Your task to perform on an android device: create a new album in the google photos Image 0: 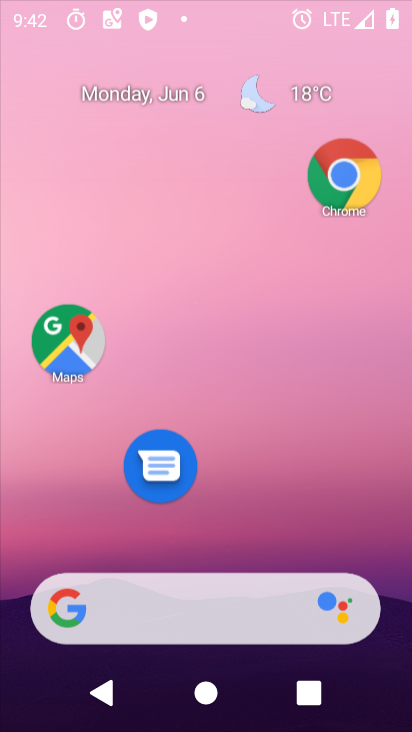
Step 0: click (240, 227)
Your task to perform on an android device: create a new album in the google photos Image 1: 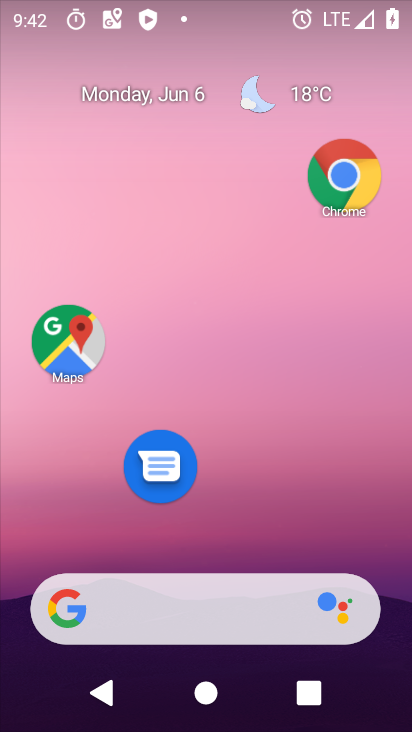
Step 1: drag from (240, 399) to (250, 213)
Your task to perform on an android device: create a new album in the google photos Image 2: 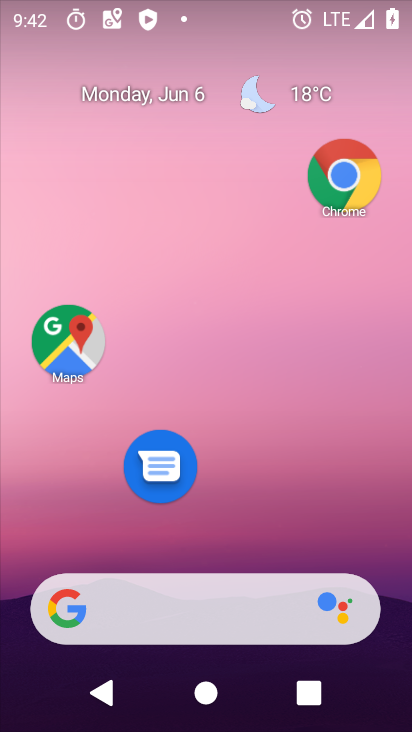
Step 2: drag from (233, 508) to (206, 221)
Your task to perform on an android device: create a new album in the google photos Image 3: 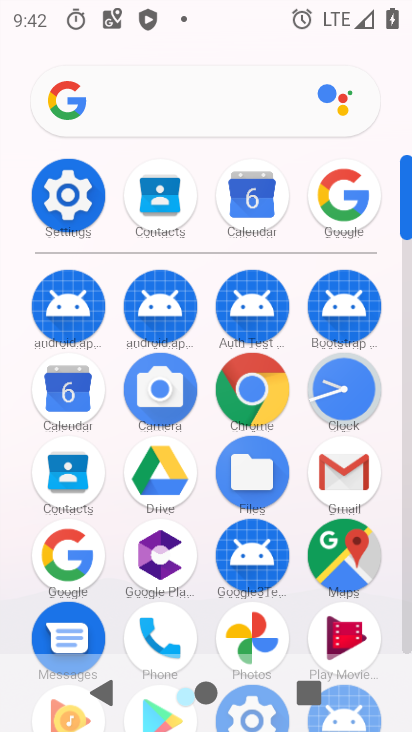
Step 3: click (248, 629)
Your task to perform on an android device: create a new album in the google photos Image 4: 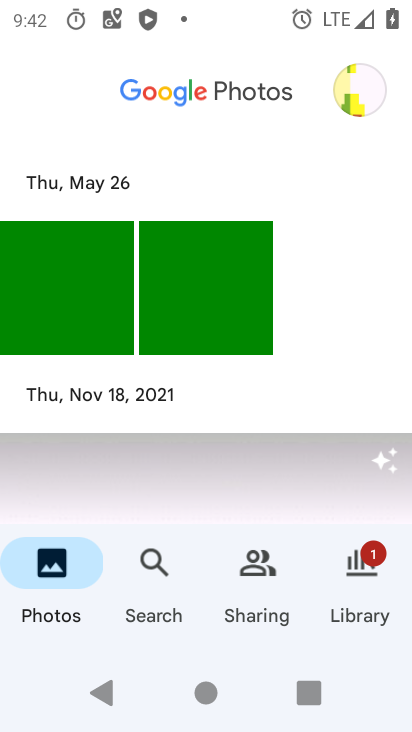
Step 4: drag from (250, 518) to (282, 95)
Your task to perform on an android device: create a new album in the google photos Image 5: 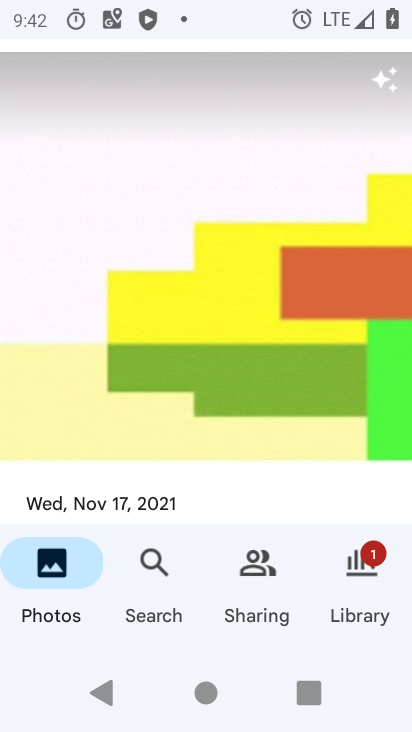
Step 5: drag from (349, 340) to (21, 281)
Your task to perform on an android device: create a new album in the google photos Image 6: 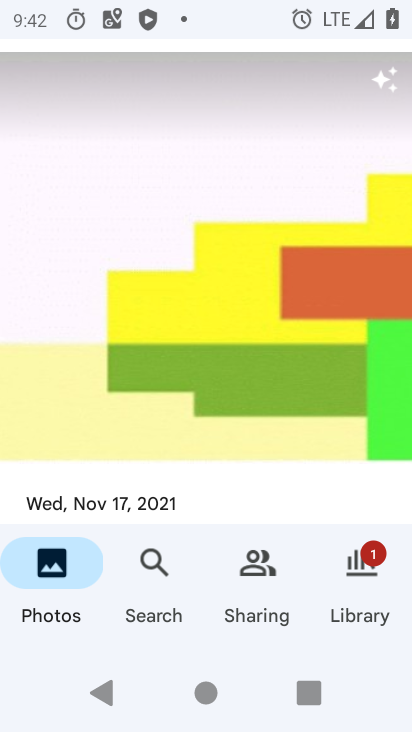
Step 6: drag from (207, 465) to (274, 95)
Your task to perform on an android device: create a new album in the google photos Image 7: 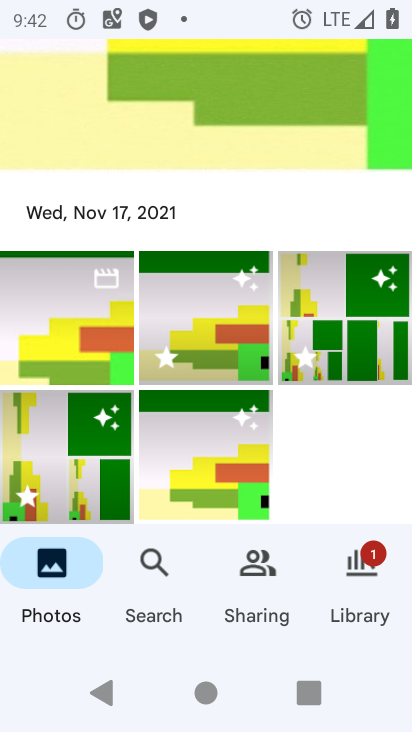
Step 7: click (46, 339)
Your task to perform on an android device: create a new album in the google photos Image 8: 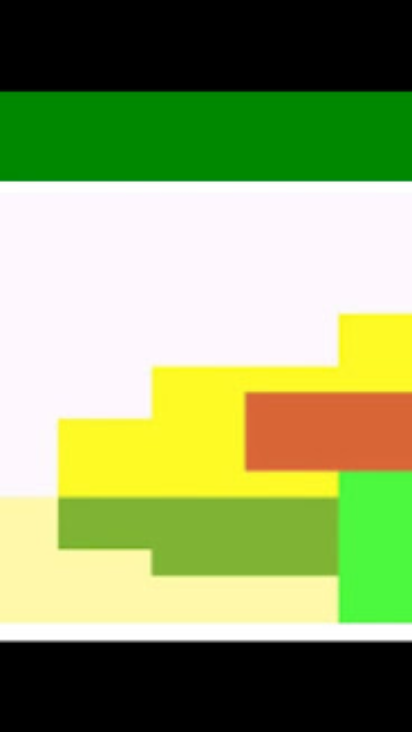
Step 8: task complete